Your task to perform on an android device: Clear the shopping cart on costco.com. Image 0: 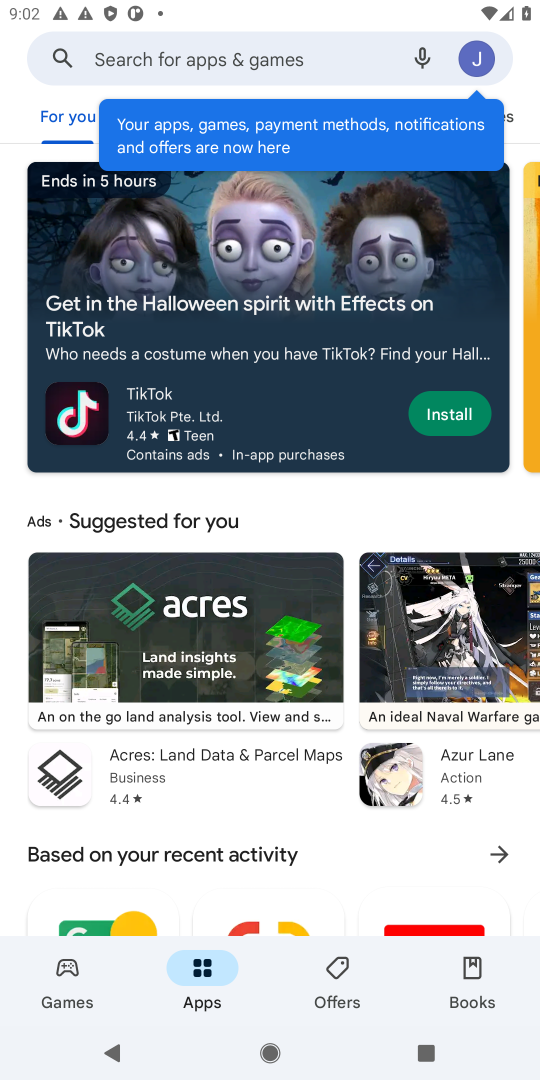
Step 0: press home button
Your task to perform on an android device: Clear the shopping cart on costco.com. Image 1: 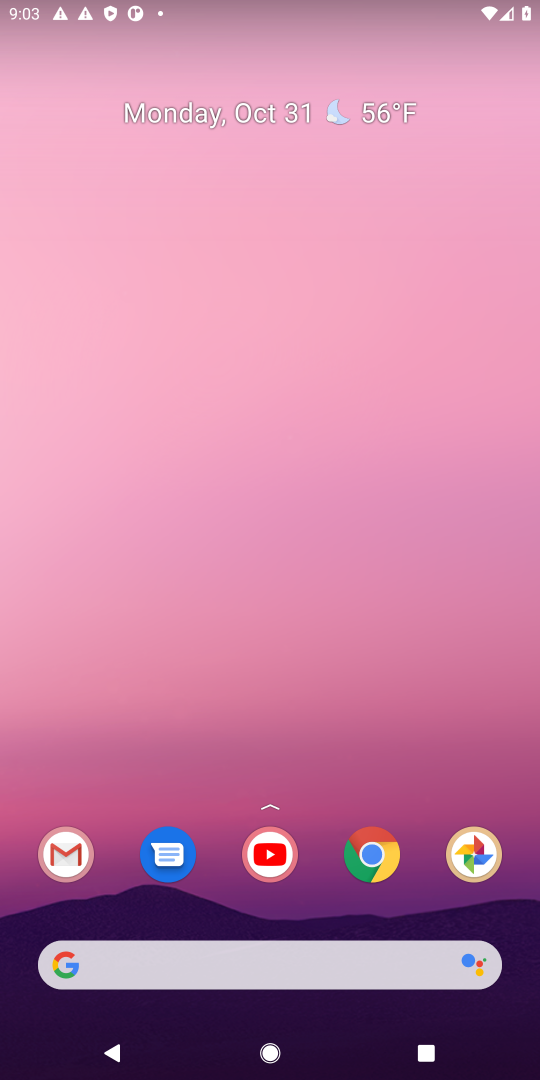
Step 1: click (310, 955)
Your task to perform on an android device: Clear the shopping cart on costco.com. Image 2: 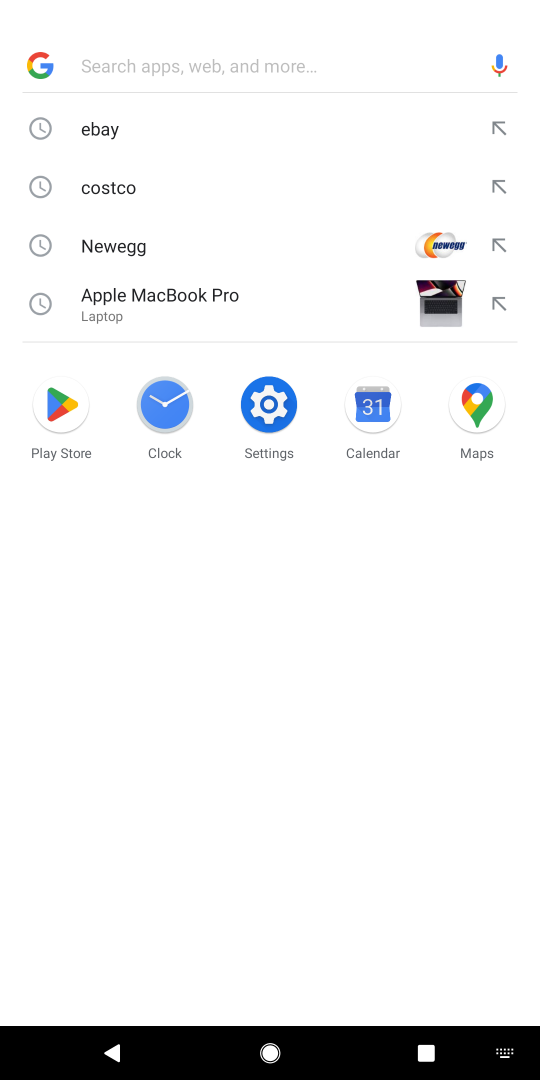
Step 2: type "costco"
Your task to perform on an android device: Clear the shopping cart on costco.com. Image 3: 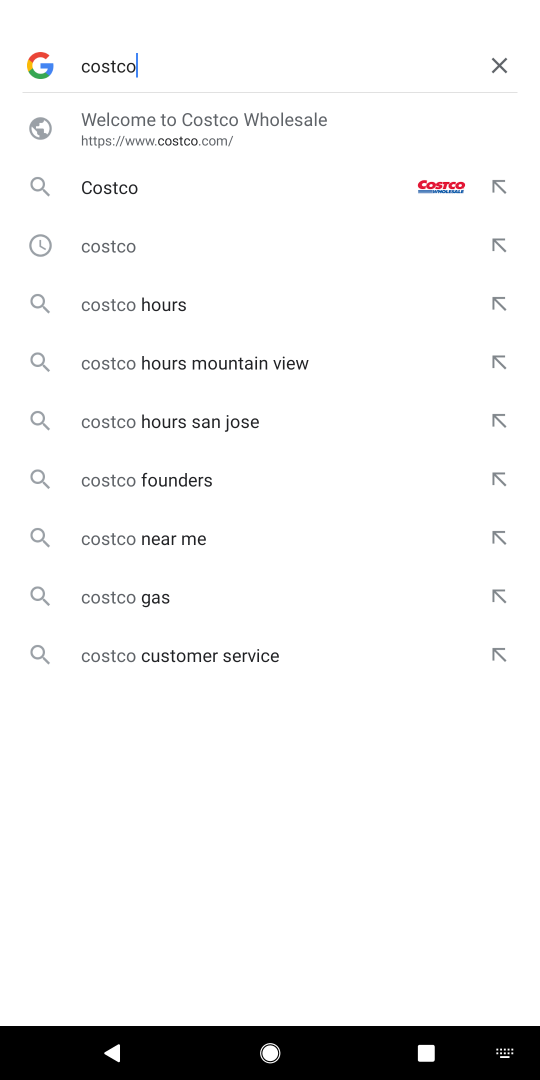
Step 3: click (197, 153)
Your task to perform on an android device: Clear the shopping cart on costco.com. Image 4: 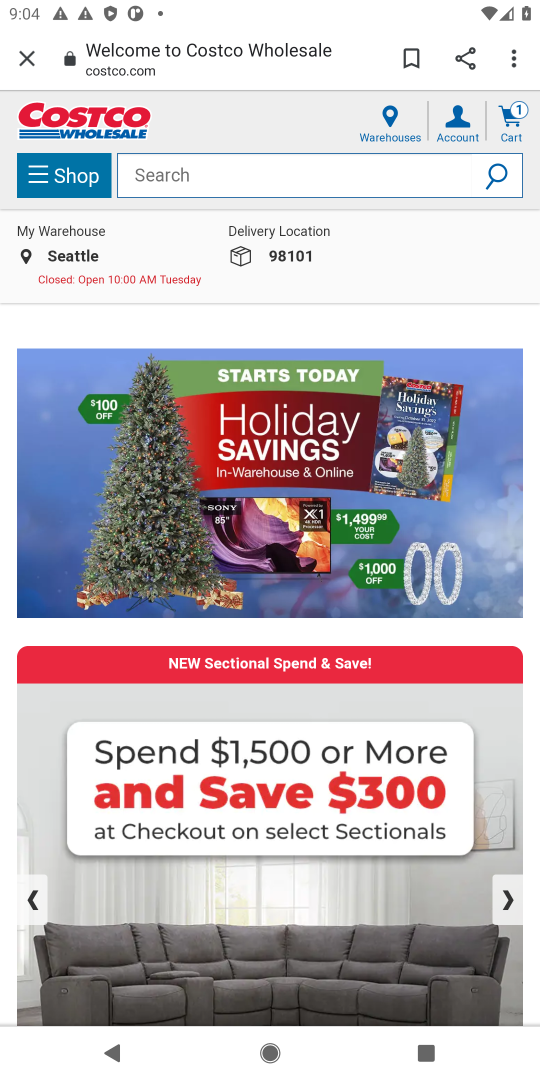
Step 4: click (267, 185)
Your task to perform on an android device: Clear the shopping cart on costco.com. Image 5: 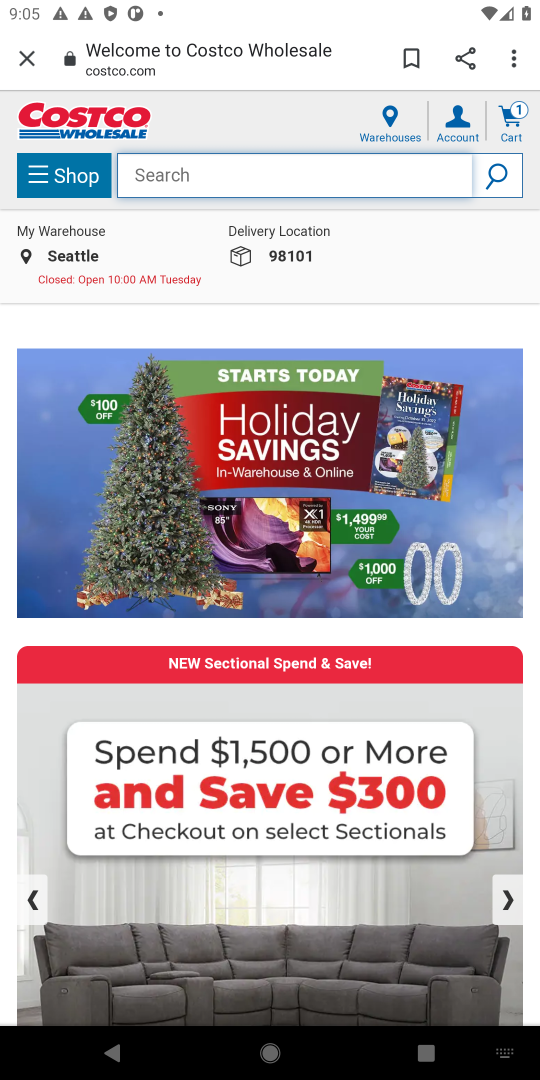
Step 5: click (511, 139)
Your task to perform on an android device: Clear the shopping cart on costco.com. Image 6: 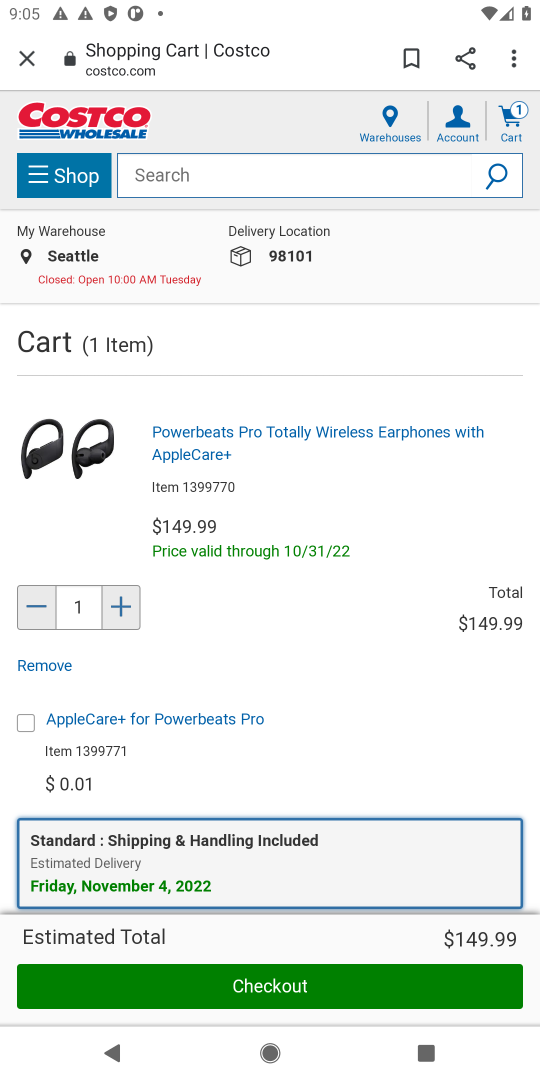
Step 6: click (33, 675)
Your task to perform on an android device: Clear the shopping cart on costco.com. Image 7: 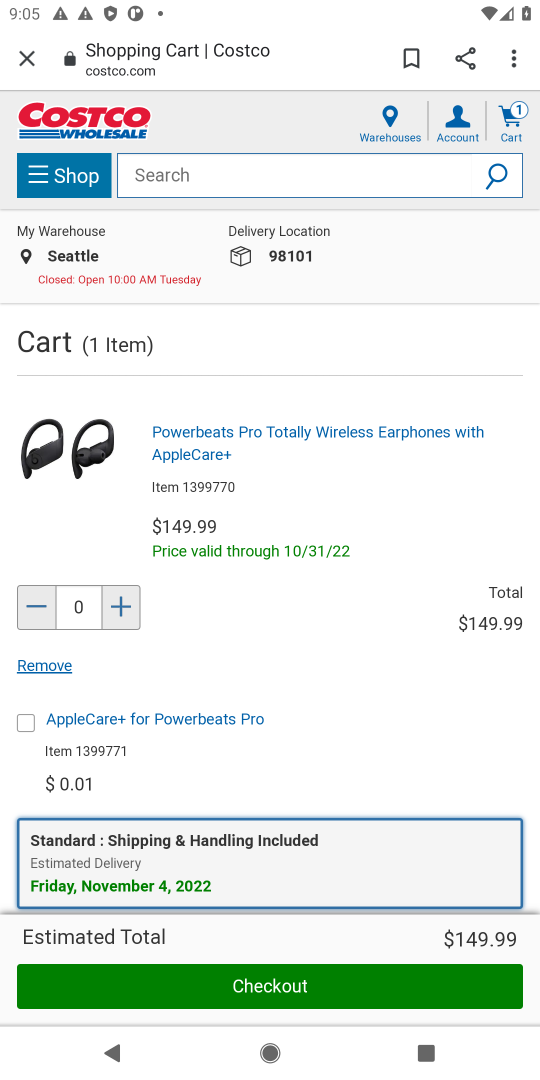
Step 7: click (50, 664)
Your task to perform on an android device: Clear the shopping cart on costco.com. Image 8: 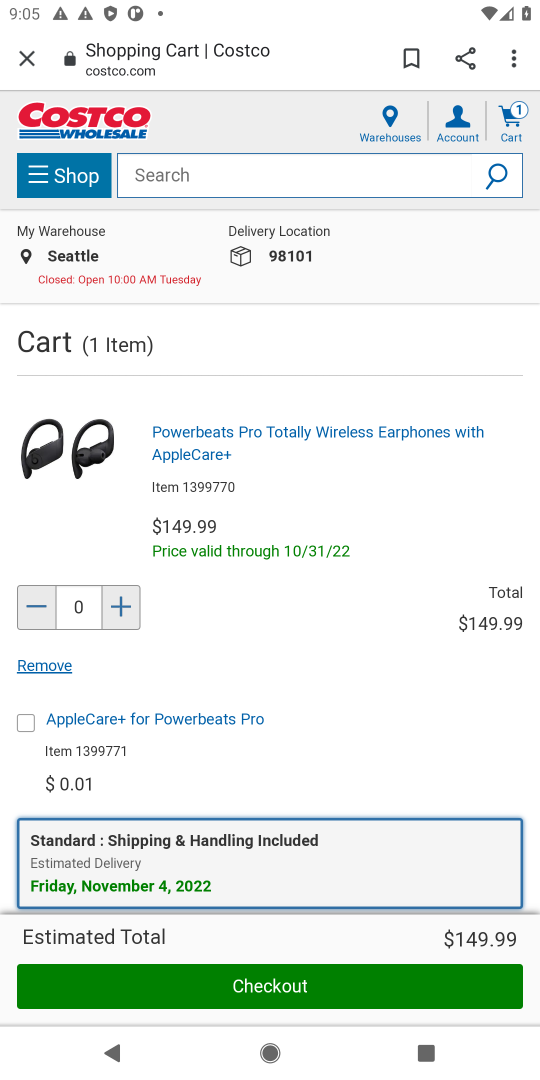
Step 8: click (50, 664)
Your task to perform on an android device: Clear the shopping cart on costco.com. Image 9: 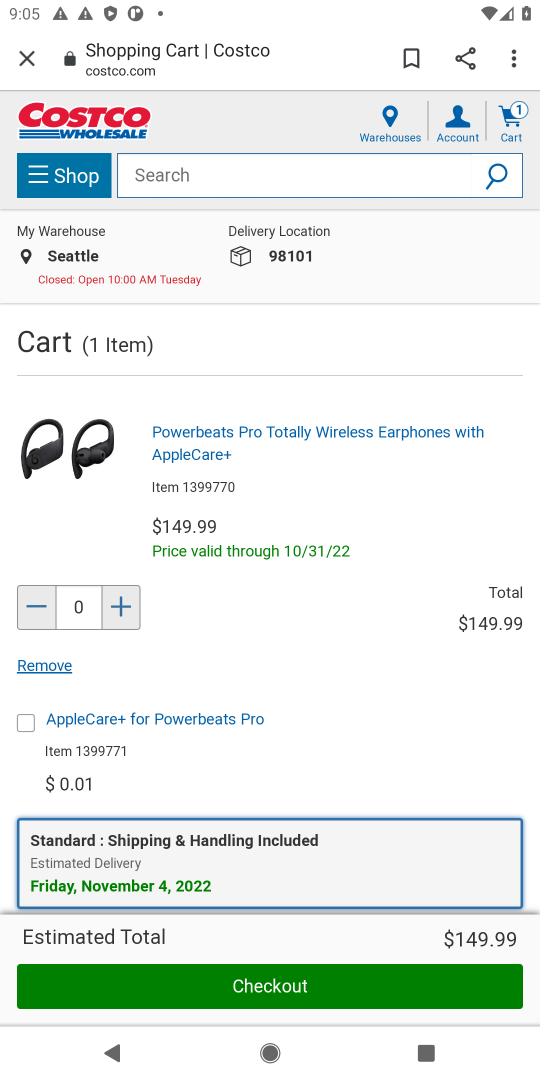
Step 9: task complete